Your task to perform on an android device: Show me the alarms in the clock app Image 0: 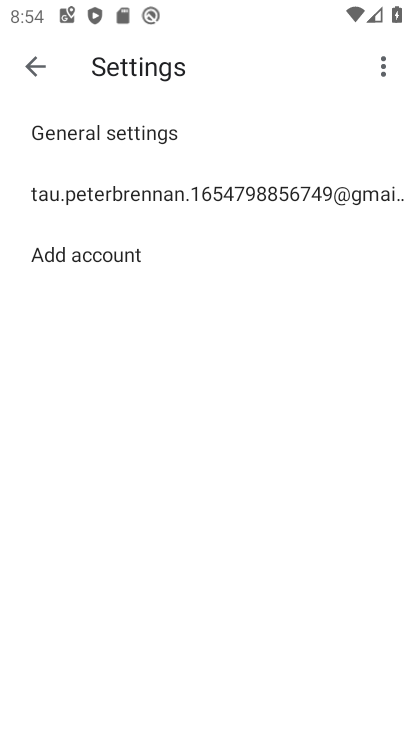
Step 0: press home button
Your task to perform on an android device: Show me the alarms in the clock app Image 1: 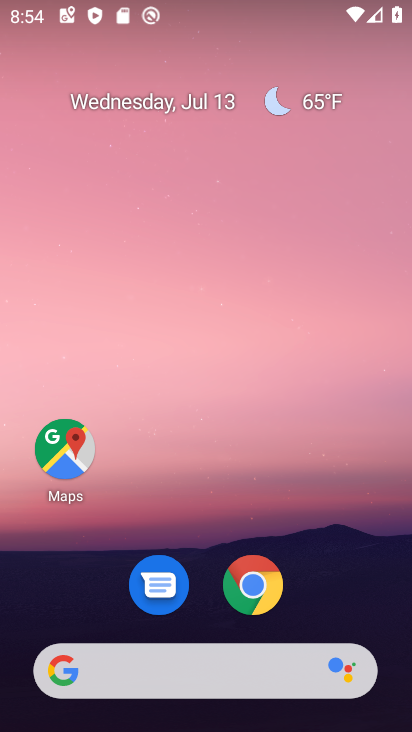
Step 1: drag from (327, 576) to (305, 47)
Your task to perform on an android device: Show me the alarms in the clock app Image 2: 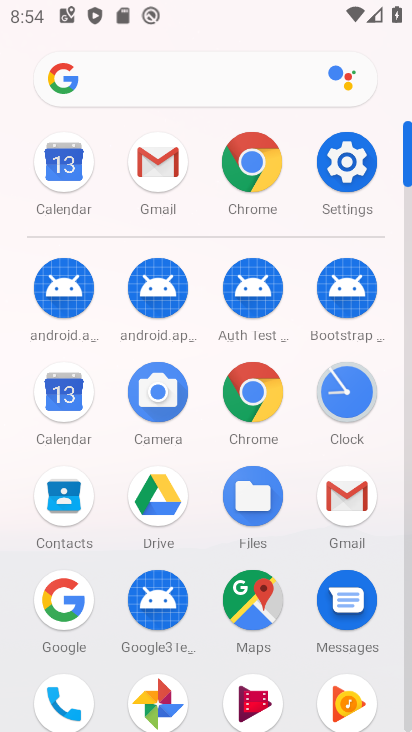
Step 2: click (354, 384)
Your task to perform on an android device: Show me the alarms in the clock app Image 3: 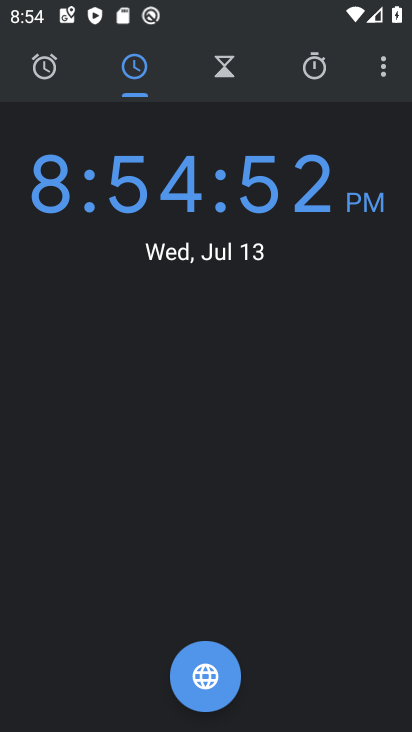
Step 3: click (46, 69)
Your task to perform on an android device: Show me the alarms in the clock app Image 4: 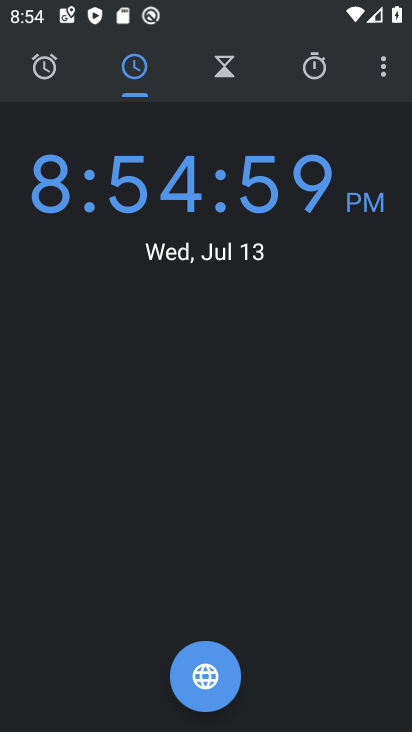
Step 4: click (46, 69)
Your task to perform on an android device: Show me the alarms in the clock app Image 5: 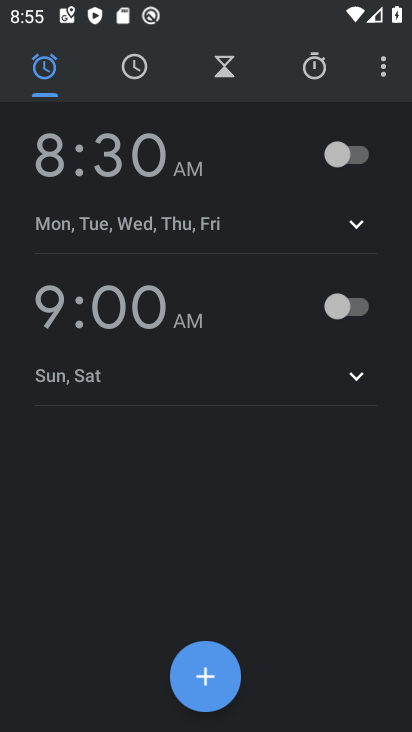
Step 5: task complete